Your task to perform on an android device: turn notification dots on Image 0: 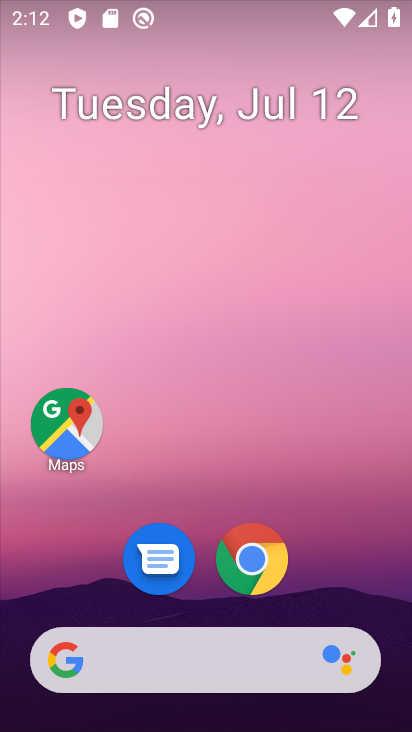
Step 0: drag from (372, 580) to (385, 142)
Your task to perform on an android device: turn notification dots on Image 1: 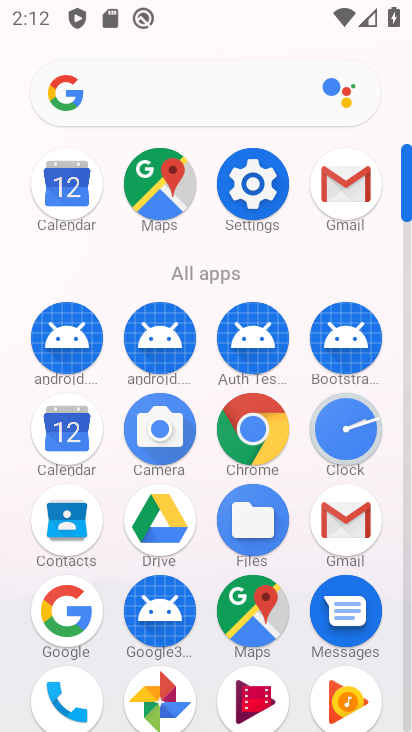
Step 1: click (261, 203)
Your task to perform on an android device: turn notification dots on Image 2: 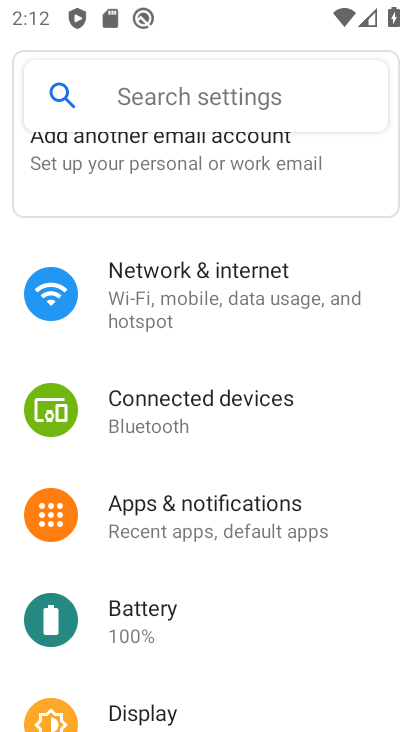
Step 2: drag from (357, 611) to (361, 489)
Your task to perform on an android device: turn notification dots on Image 3: 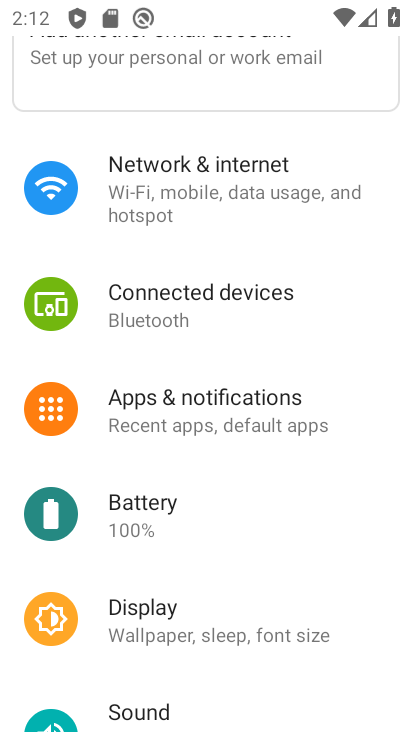
Step 3: drag from (363, 597) to (351, 440)
Your task to perform on an android device: turn notification dots on Image 4: 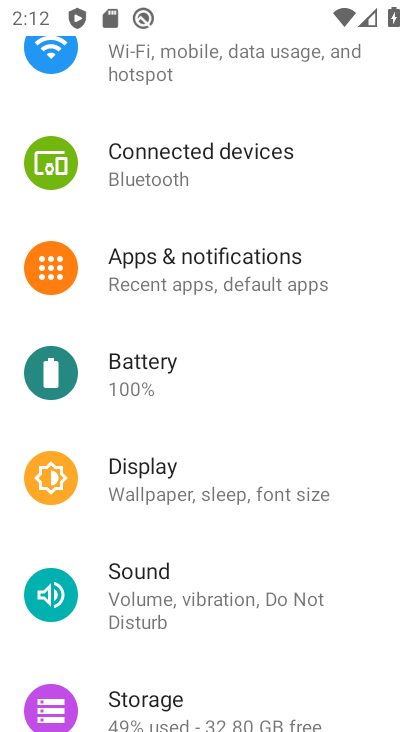
Step 4: drag from (380, 599) to (376, 491)
Your task to perform on an android device: turn notification dots on Image 5: 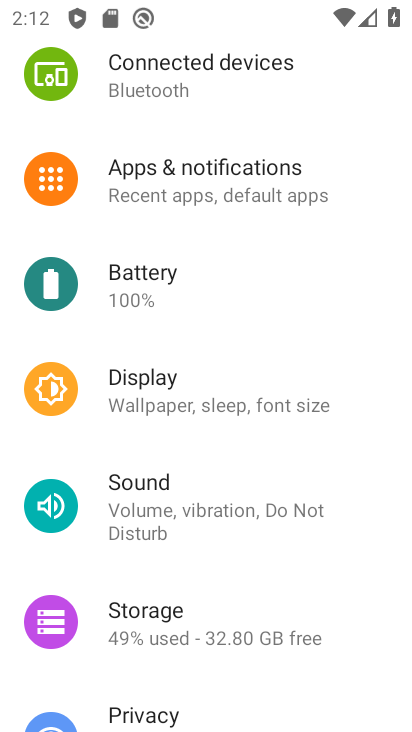
Step 5: drag from (377, 589) to (369, 497)
Your task to perform on an android device: turn notification dots on Image 6: 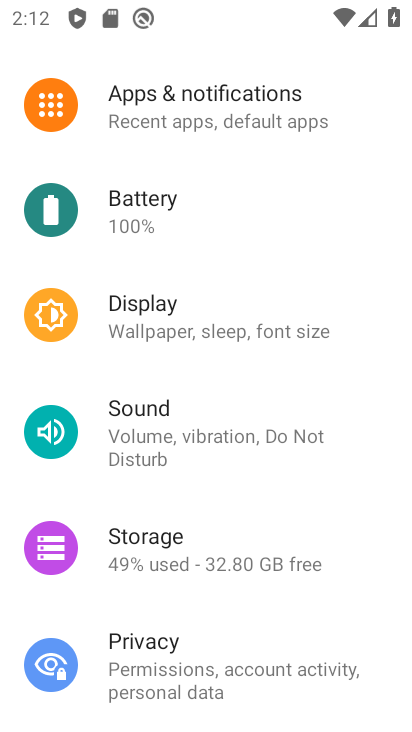
Step 6: drag from (344, 593) to (333, 468)
Your task to perform on an android device: turn notification dots on Image 7: 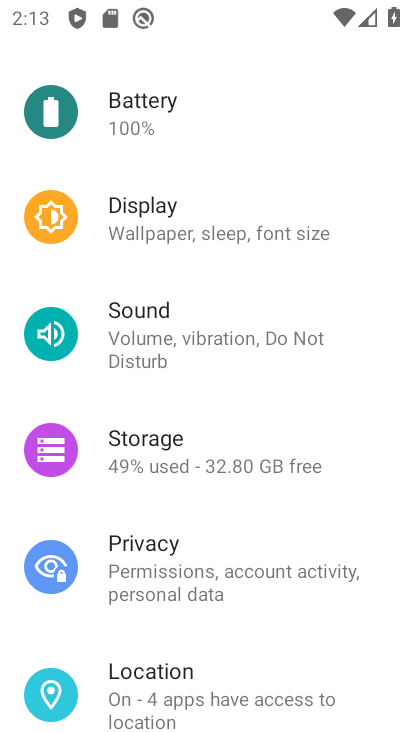
Step 7: drag from (326, 622) to (325, 523)
Your task to perform on an android device: turn notification dots on Image 8: 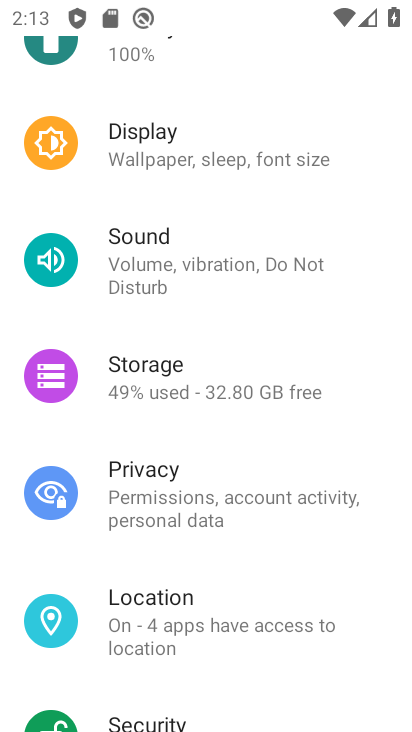
Step 8: drag from (364, 671) to (367, 579)
Your task to perform on an android device: turn notification dots on Image 9: 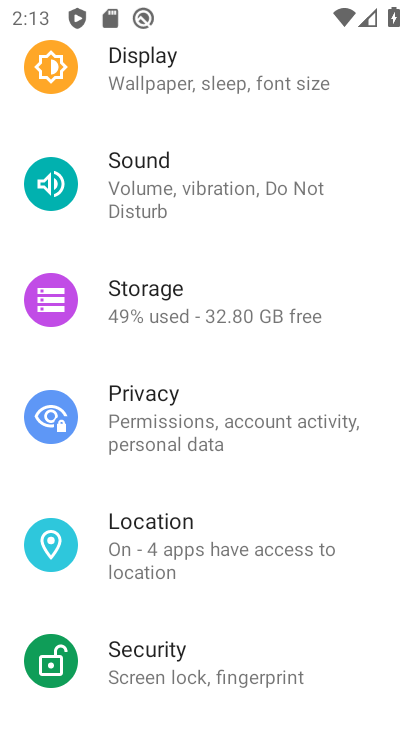
Step 9: drag from (370, 586) to (366, 510)
Your task to perform on an android device: turn notification dots on Image 10: 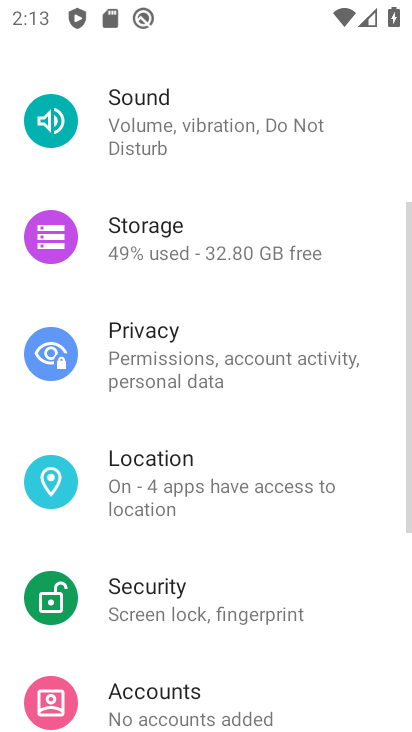
Step 10: drag from (363, 425) to (374, 529)
Your task to perform on an android device: turn notification dots on Image 11: 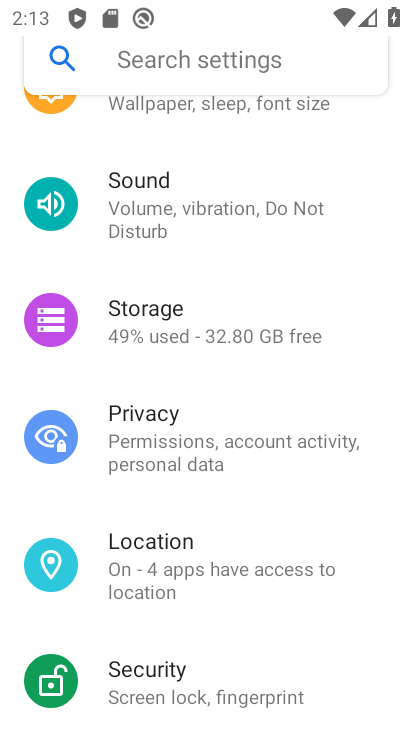
Step 11: drag from (374, 401) to (375, 498)
Your task to perform on an android device: turn notification dots on Image 12: 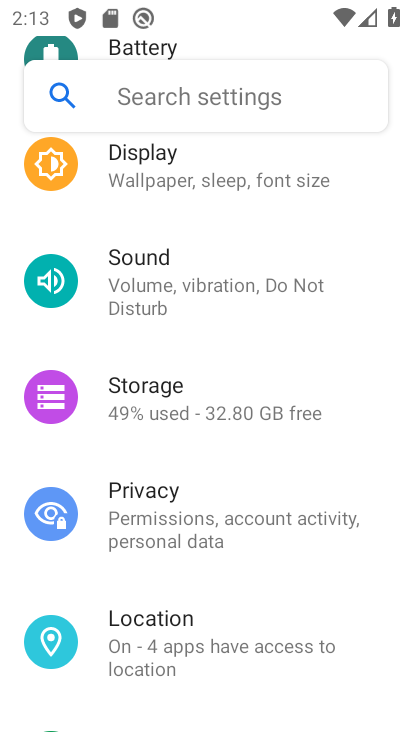
Step 12: drag from (369, 389) to (371, 473)
Your task to perform on an android device: turn notification dots on Image 13: 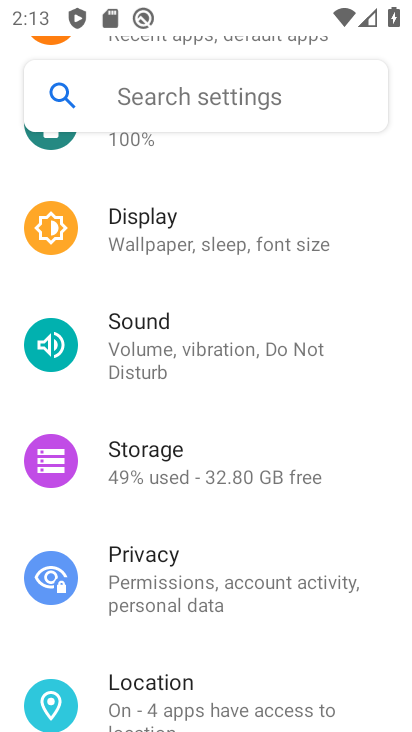
Step 13: drag from (368, 369) to (366, 479)
Your task to perform on an android device: turn notification dots on Image 14: 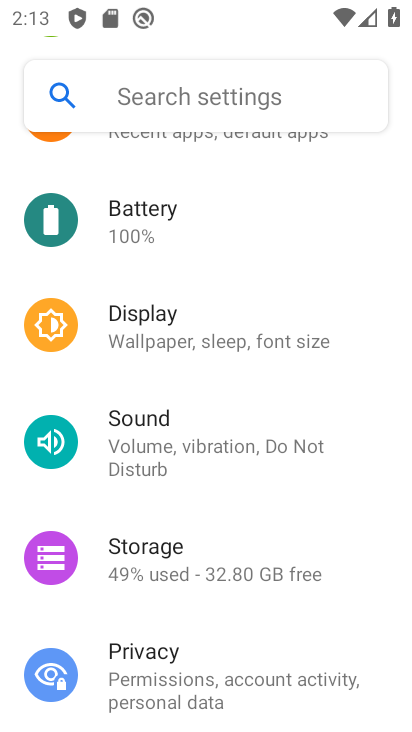
Step 14: drag from (360, 372) to (351, 476)
Your task to perform on an android device: turn notification dots on Image 15: 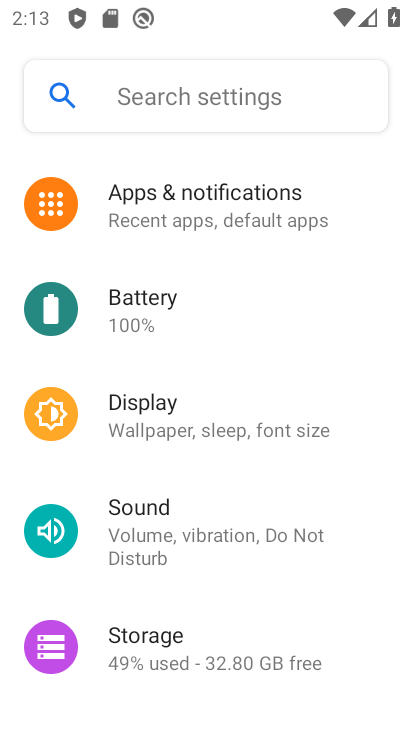
Step 15: drag from (347, 363) to (352, 522)
Your task to perform on an android device: turn notification dots on Image 16: 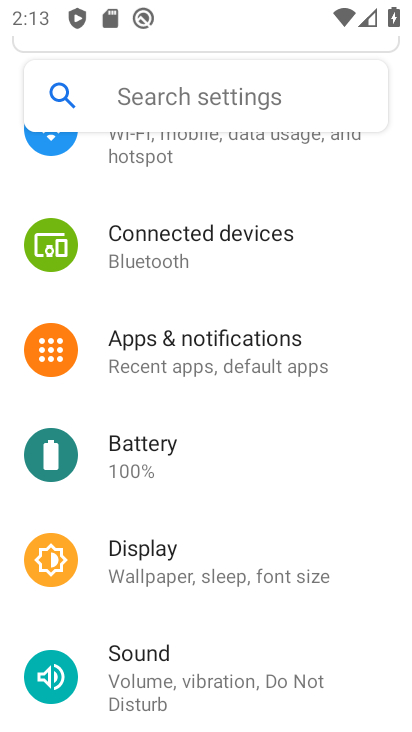
Step 16: drag from (350, 310) to (386, 556)
Your task to perform on an android device: turn notification dots on Image 17: 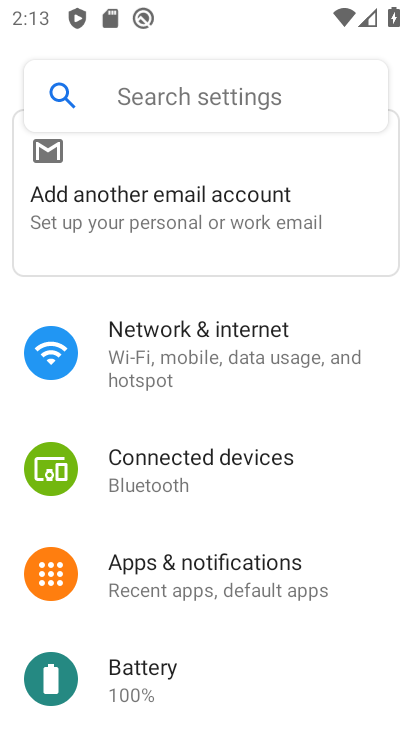
Step 17: click (322, 580)
Your task to perform on an android device: turn notification dots on Image 18: 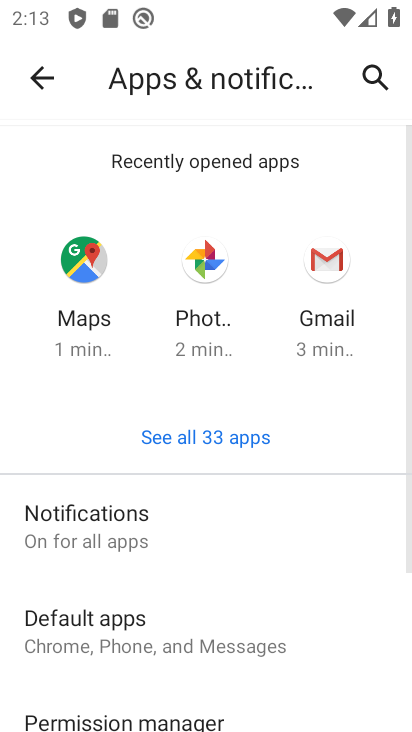
Step 18: click (138, 535)
Your task to perform on an android device: turn notification dots on Image 19: 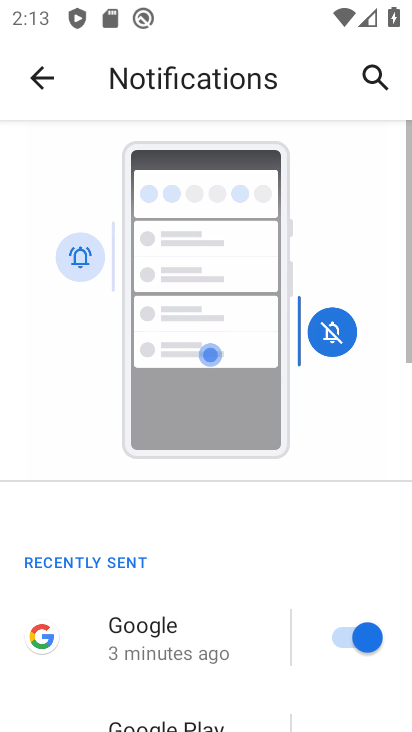
Step 19: drag from (327, 564) to (322, 456)
Your task to perform on an android device: turn notification dots on Image 20: 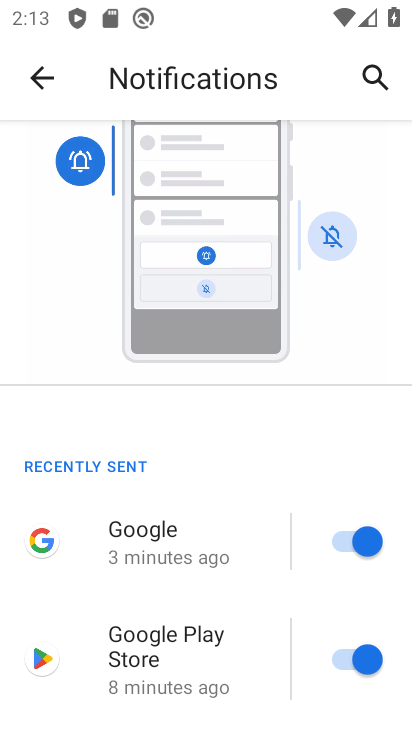
Step 20: drag from (313, 607) to (312, 484)
Your task to perform on an android device: turn notification dots on Image 21: 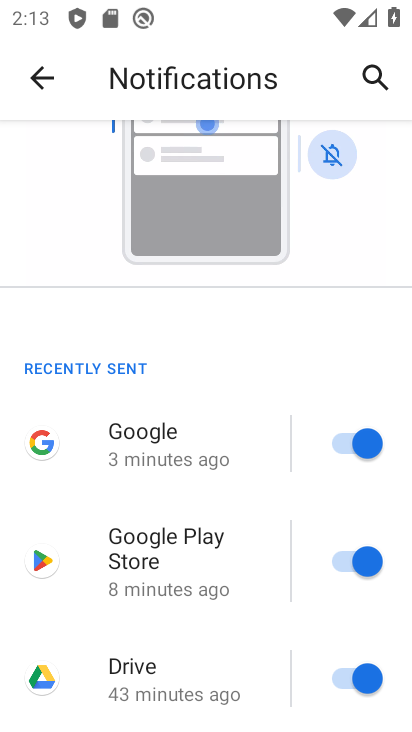
Step 21: drag from (310, 615) to (310, 464)
Your task to perform on an android device: turn notification dots on Image 22: 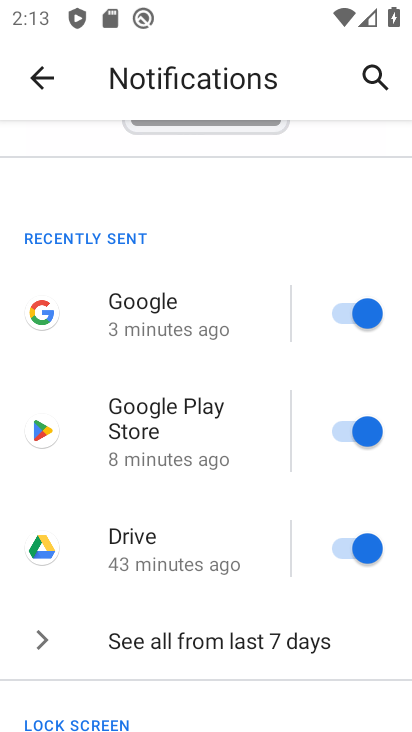
Step 22: drag from (303, 610) to (310, 504)
Your task to perform on an android device: turn notification dots on Image 23: 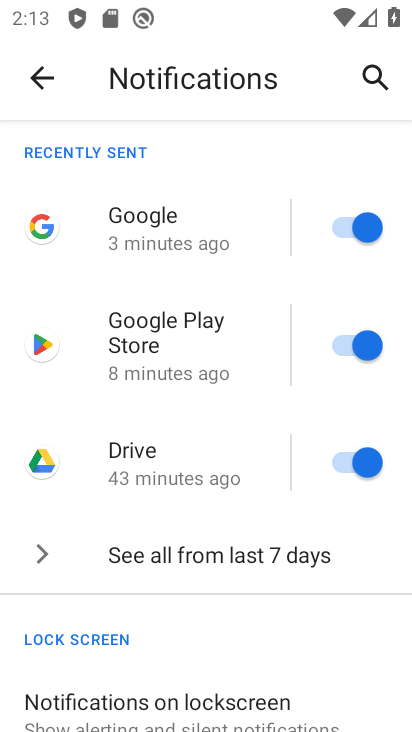
Step 23: drag from (298, 637) to (298, 492)
Your task to perform on an android device: turn notification dots on Image 24: 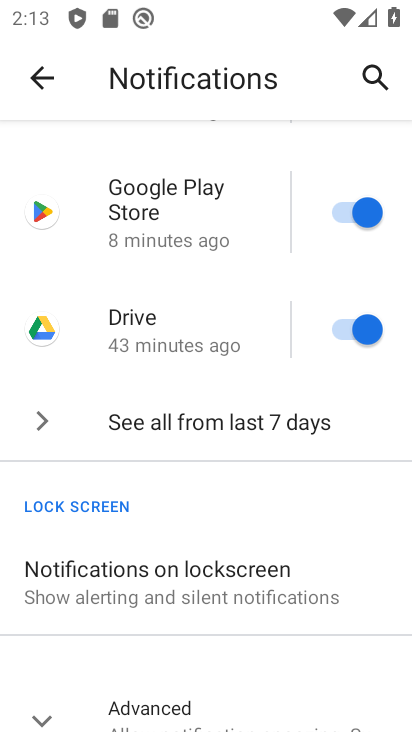
Step 24: drag from (279, 658) to (275, 494)
Your task to perform on an android device: turn notification dots on Image 25: 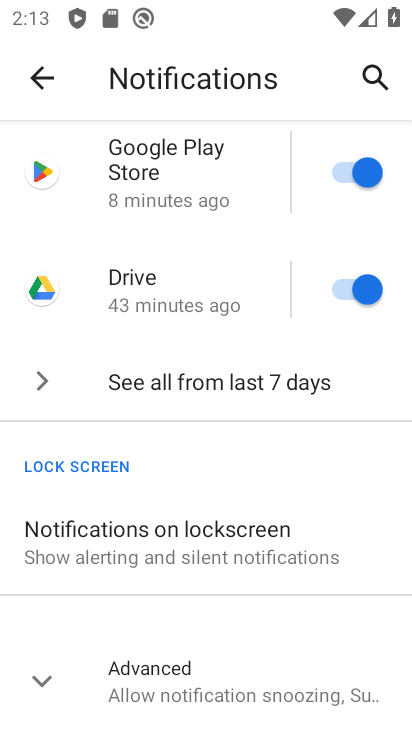
Step 25: click (264, 685)
Your task to perform on an android device: turn notification dots on Image 26: 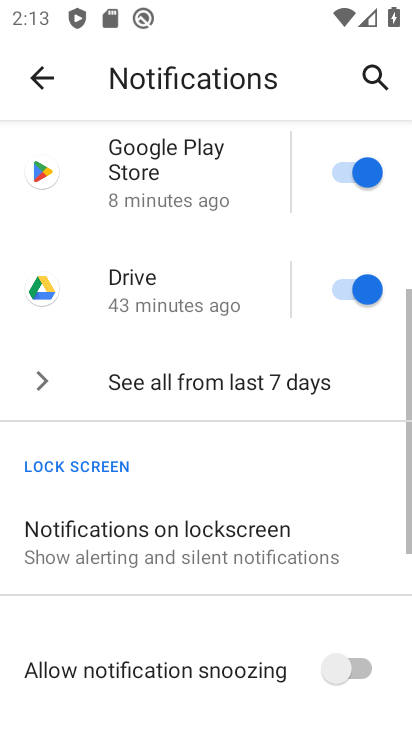
Step 26: task complete